Your task to perform on an android device: choose inbox layout in the gmail app Image 0: 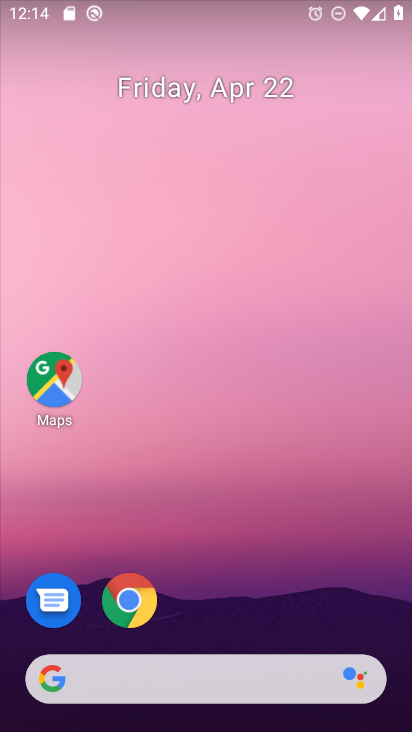
Step 0: drag from (254, 600) to (158, 83)
Your task to perform on an android device: choose inbox layout in the gmail app Image 1: 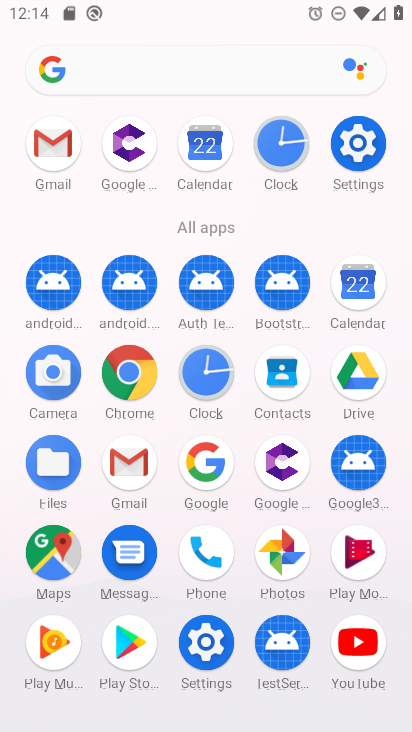
Step 1: click (56, 141)
Your task to perform on an android device: choose inbox layout in the gmail app Image 2: 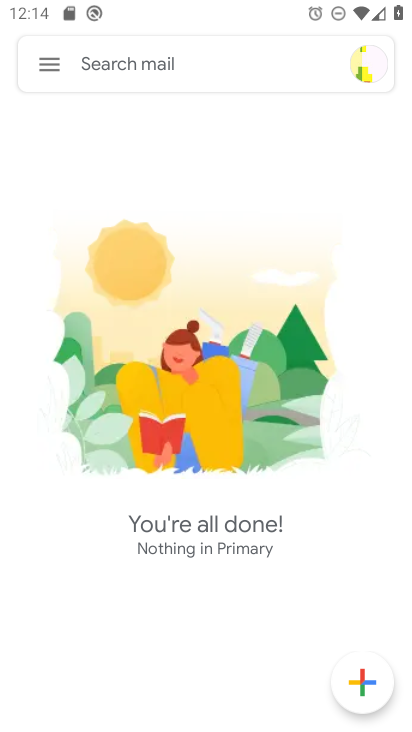
Step 2: click (47, 61)
Your task to perform on an android device: choose inbox layout in the gmail app Image 3: 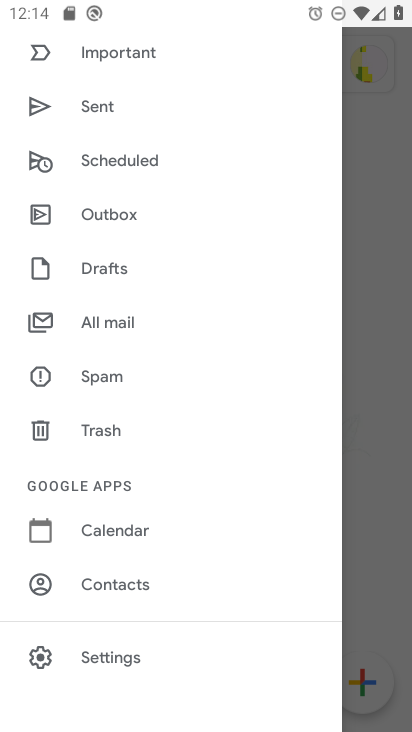
Step 3: click (109, 660)
Your task to perform on an android device: choose inbox layout in the gmail app Image 4: 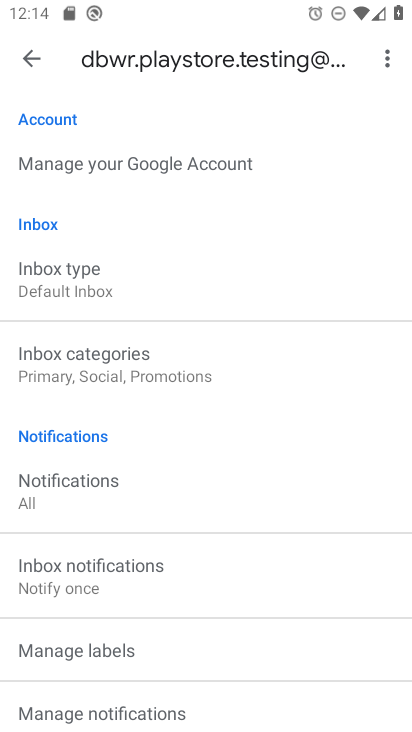
Step 4: click (73, 287)
Your task to perform on an android device: choose inbox layout in the gmail app Image 5: 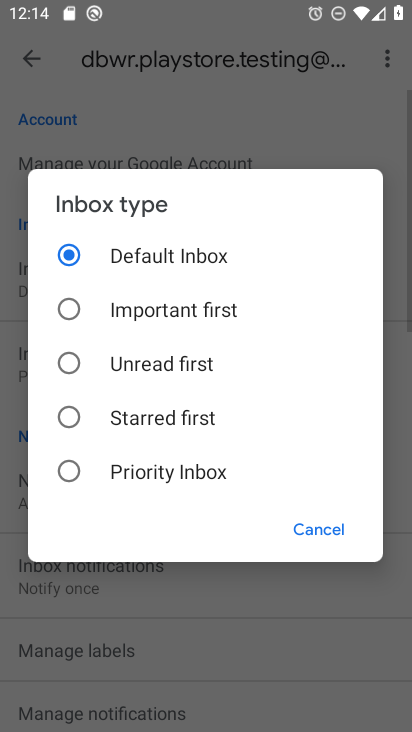
Step 5: click (94, 299)
Your task to perform on an android device: choose inbox layout in the gmail app Image 6: 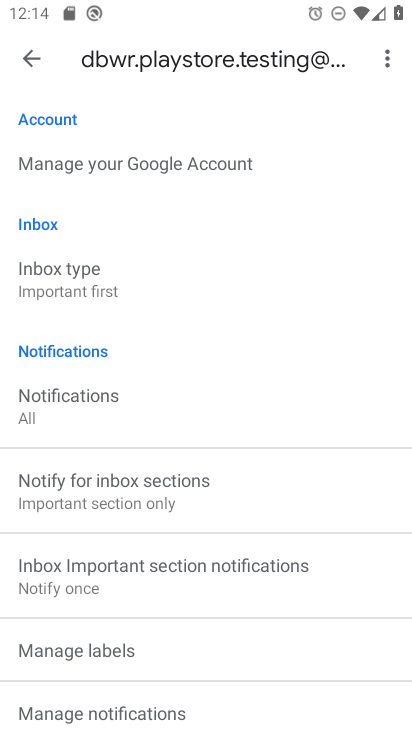
Step 6: task complete